Your task to perform on an android device: Open the phone app and click the voicemail tab. Image 0: 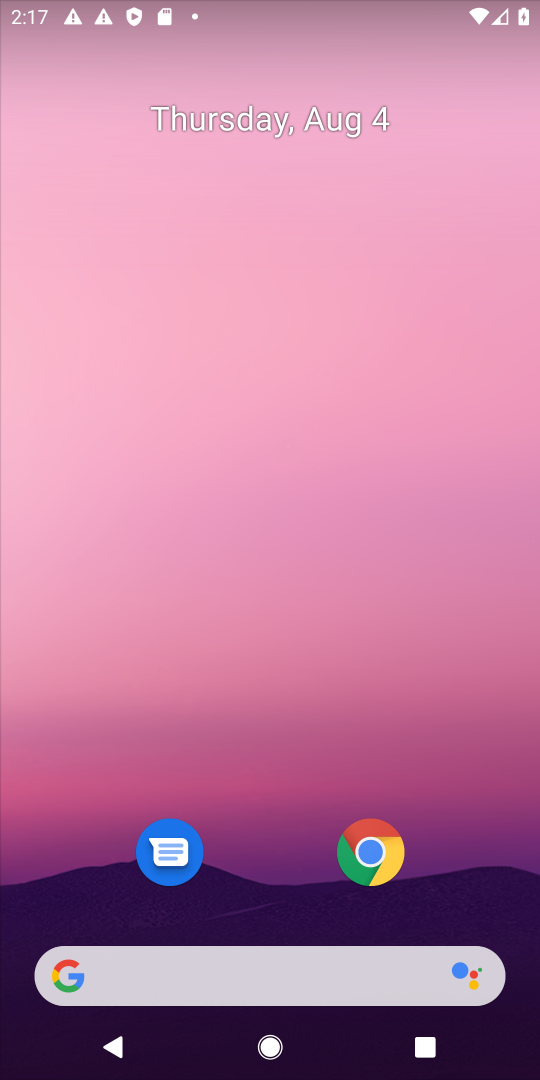
Step 0: drag from (283, 703) to (363, 0)
Your task to perform on an android device: Open the phone app and click the voicemail tab. Image 1: 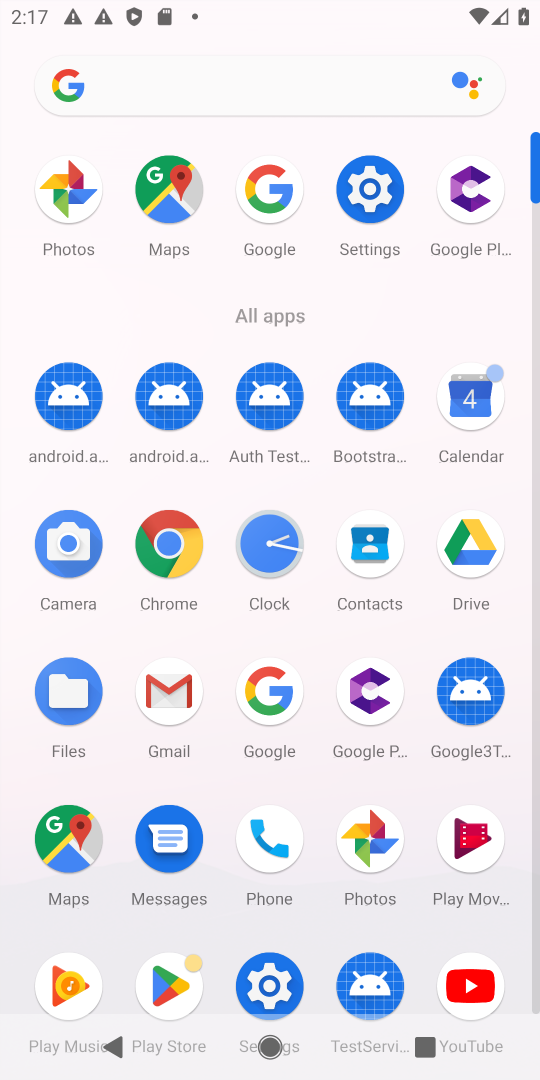
Step 1: click (275, 844)
Your task to perform on an android device: Open the phone app and click the voicemail tab. Image 2: 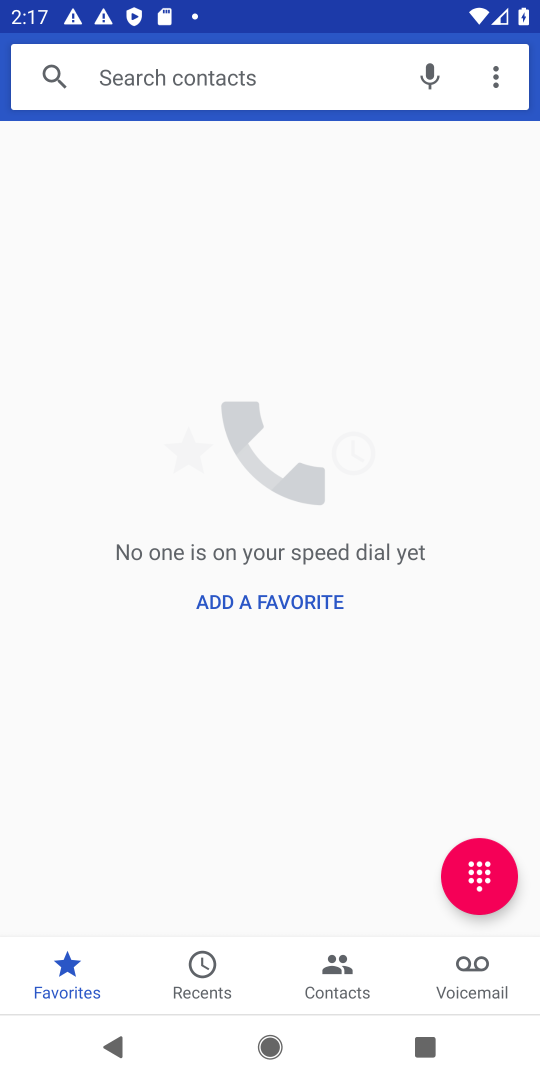
Step 2: click (462, 985)
Your task to perform on an android device: Open the phone app and click the voicemail tab. Image 3: 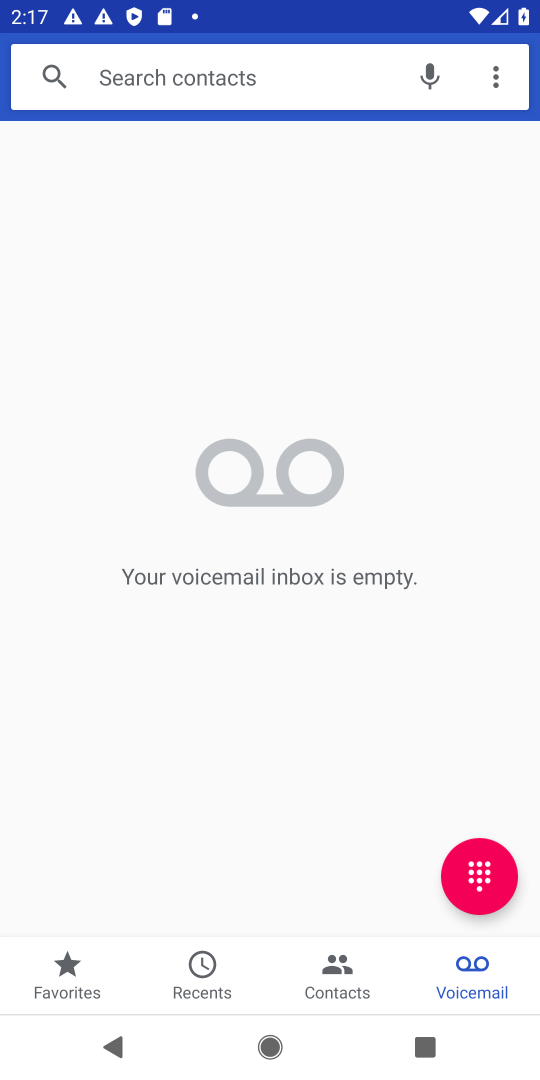
Step 3: task complete